Your task to perform on an android device: What is the news today? Image 0: 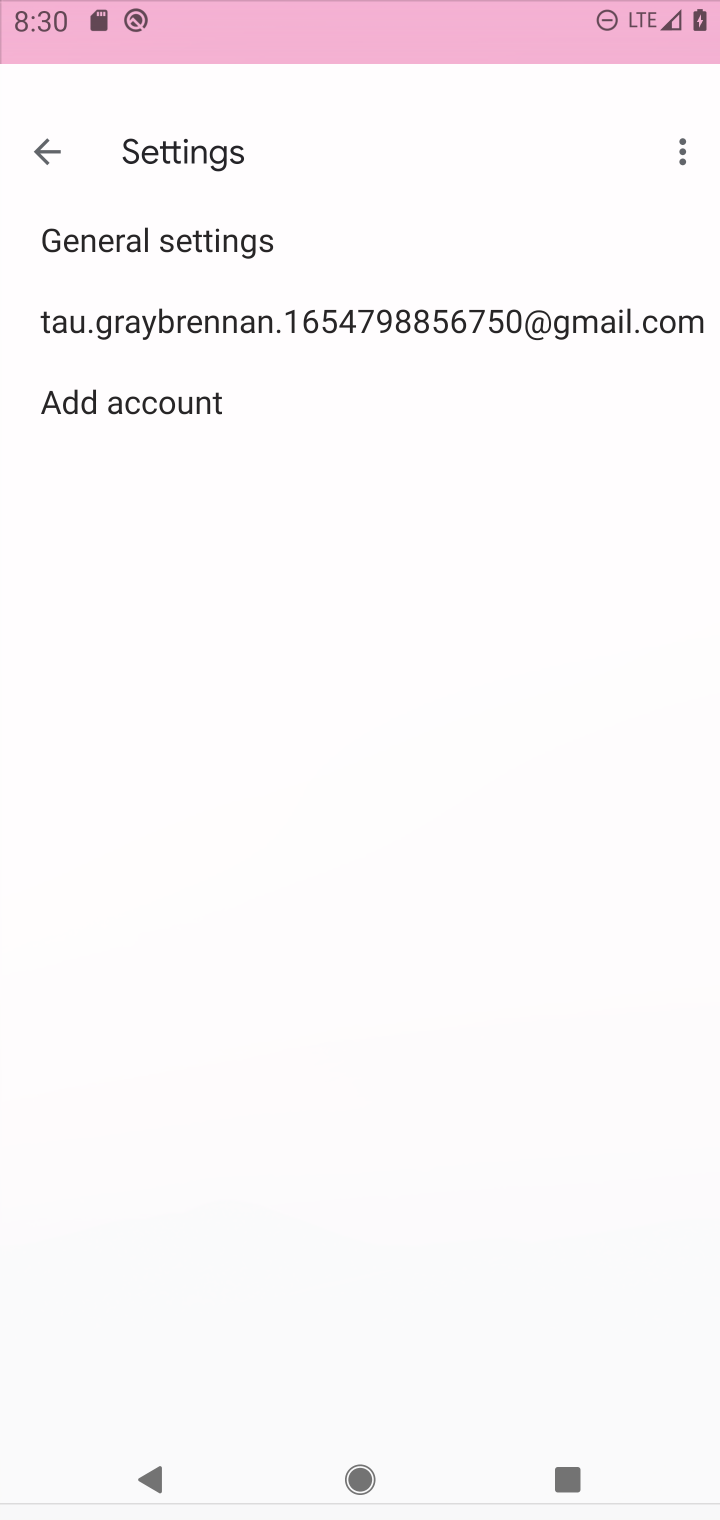
Step 0: press home button
Your task to perform on an android device: What is the news today? Image 1: 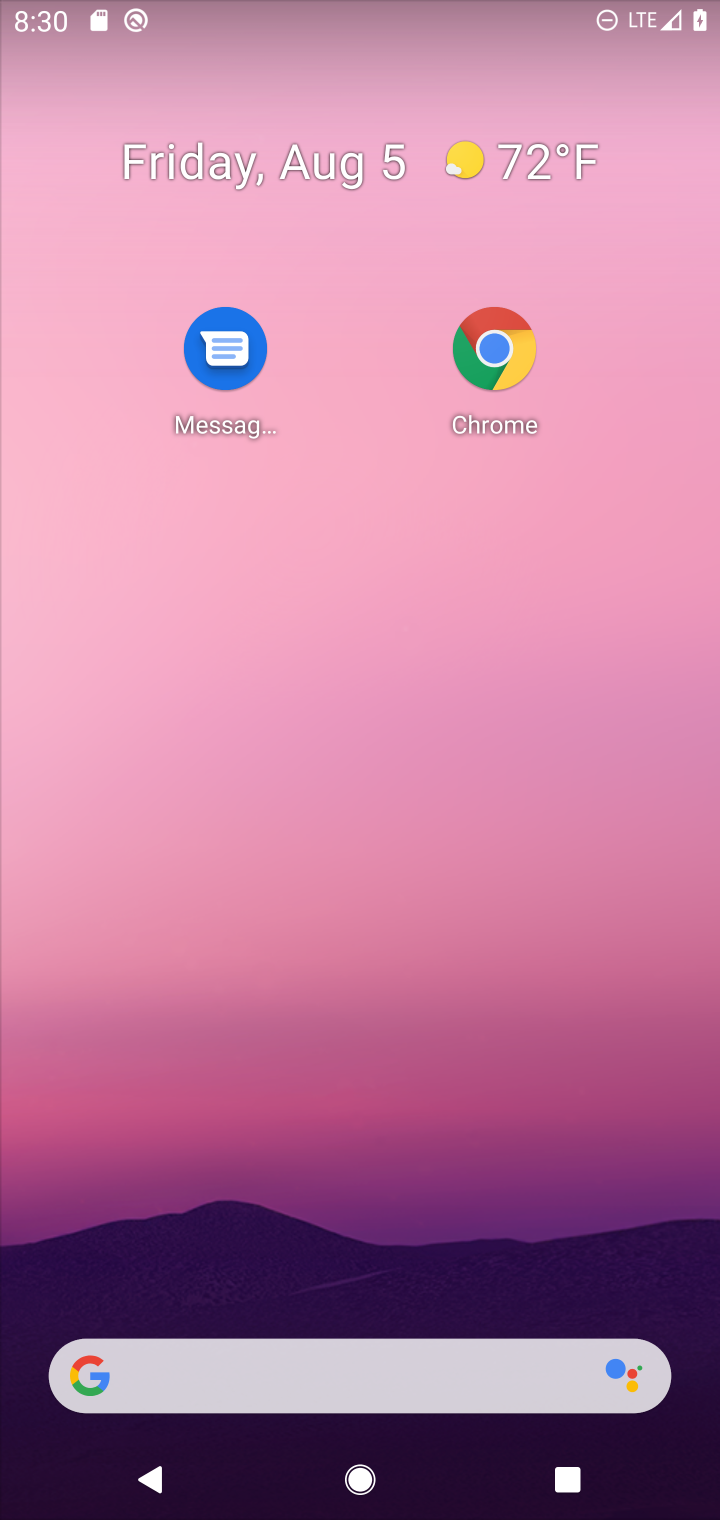
Step 1: drag from (464, 839) to (559, 311)
Your task to perform on an android device: What is the news today? Image 2: 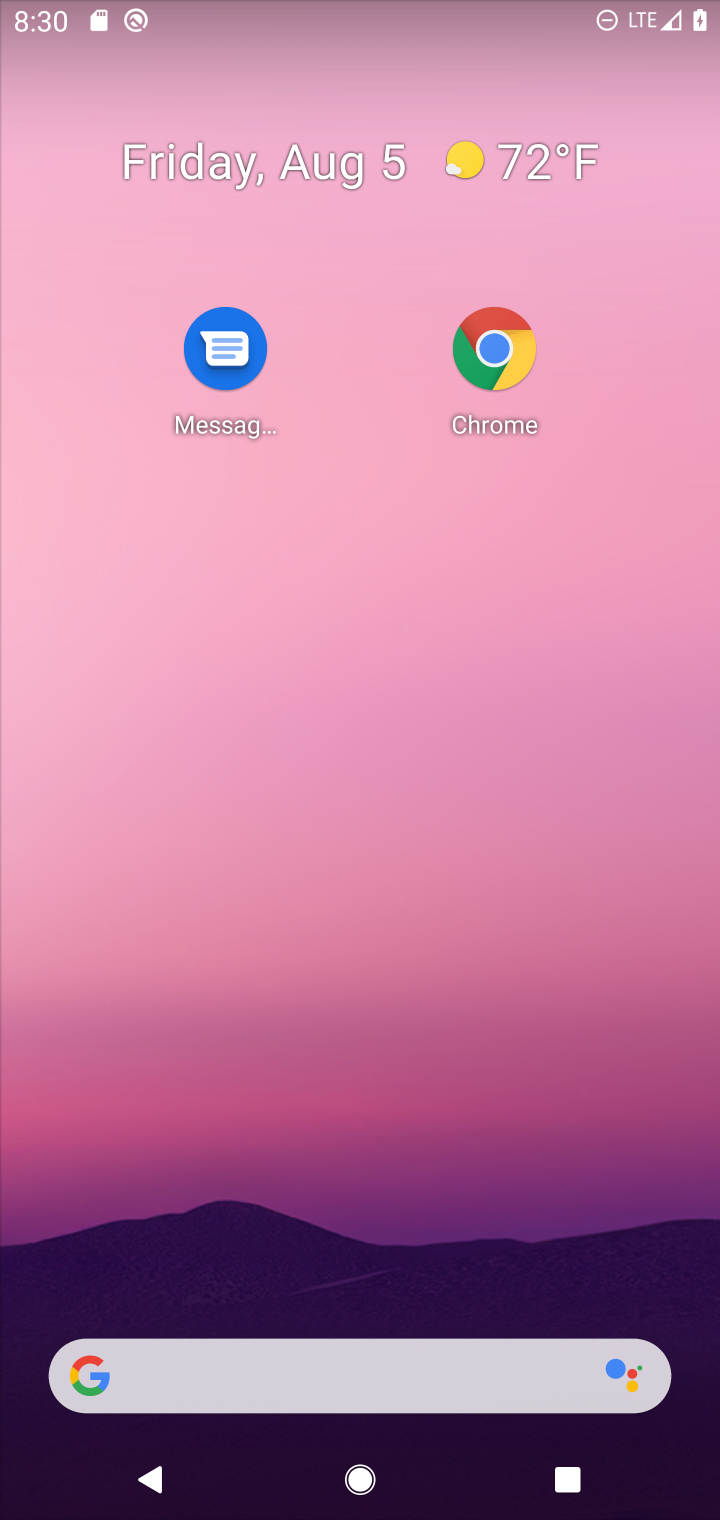
Step 2: drag from (363, 1409) to (511, 170)
Your task to perform on an android device: What is the news today? Image 3: 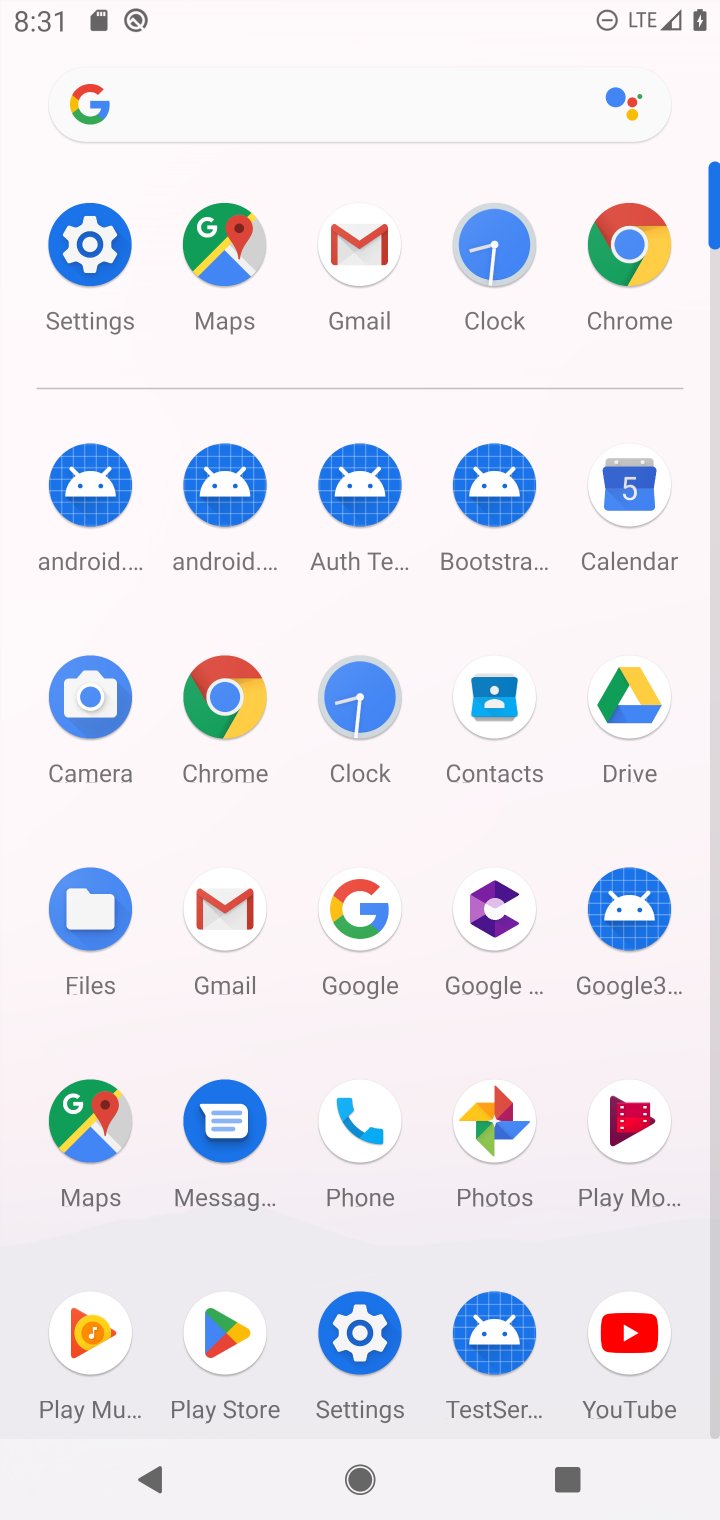
Step 3: click (274, 104)
Your task to perform on an android device: What is the news today? Image 4: 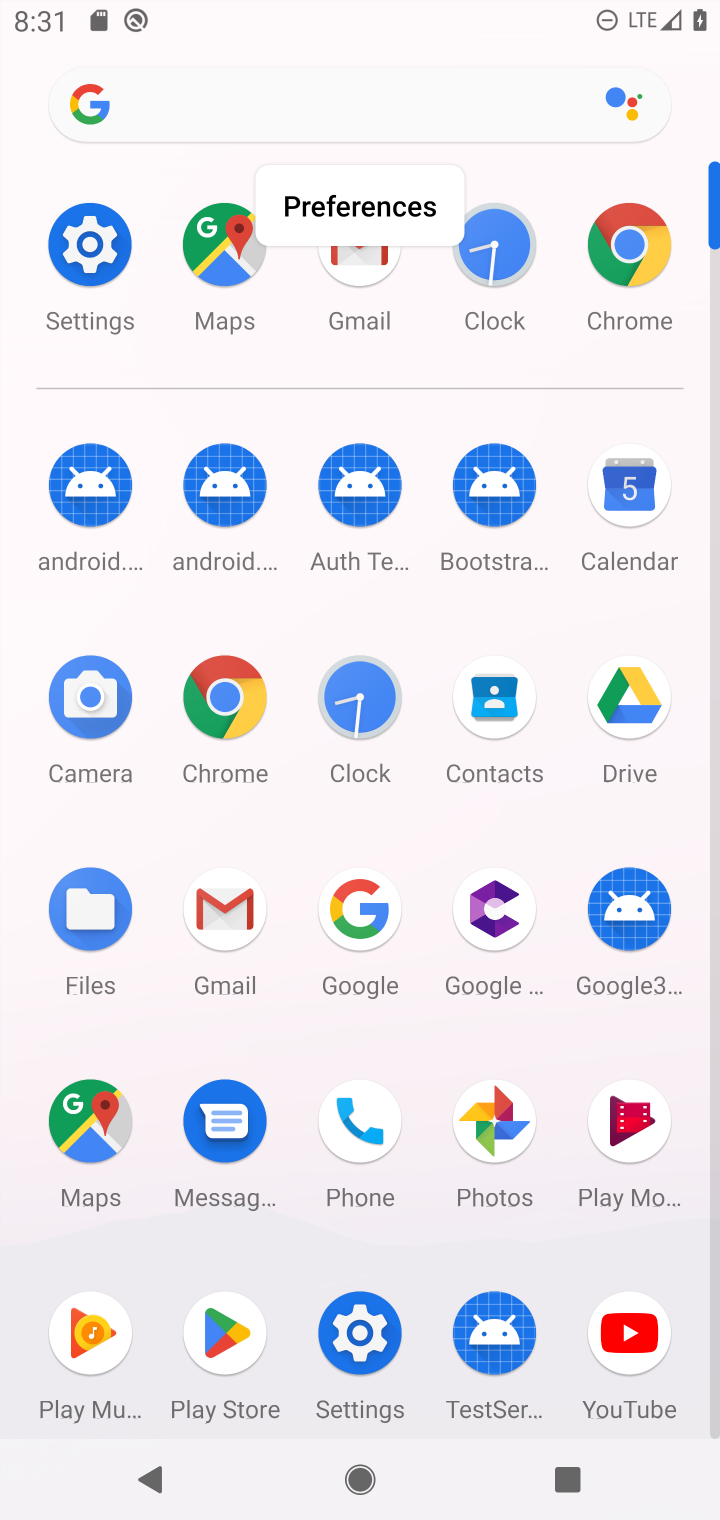
Step 4: click (254, 89)
Your task to perform on an android device: What is the news today? Image 5: 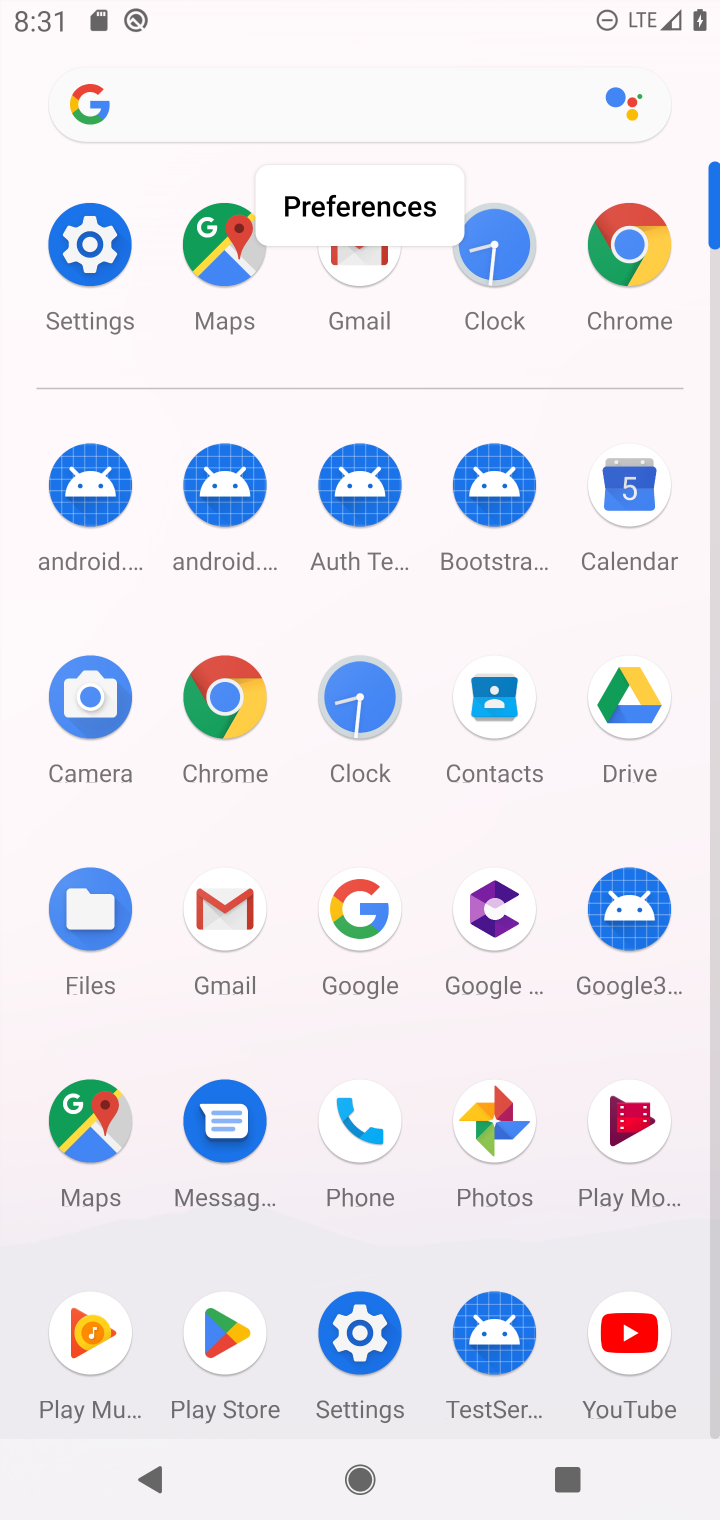
Step 5: click (235, 110)
Your task to perform on an android device: What is the news today? Image 6: 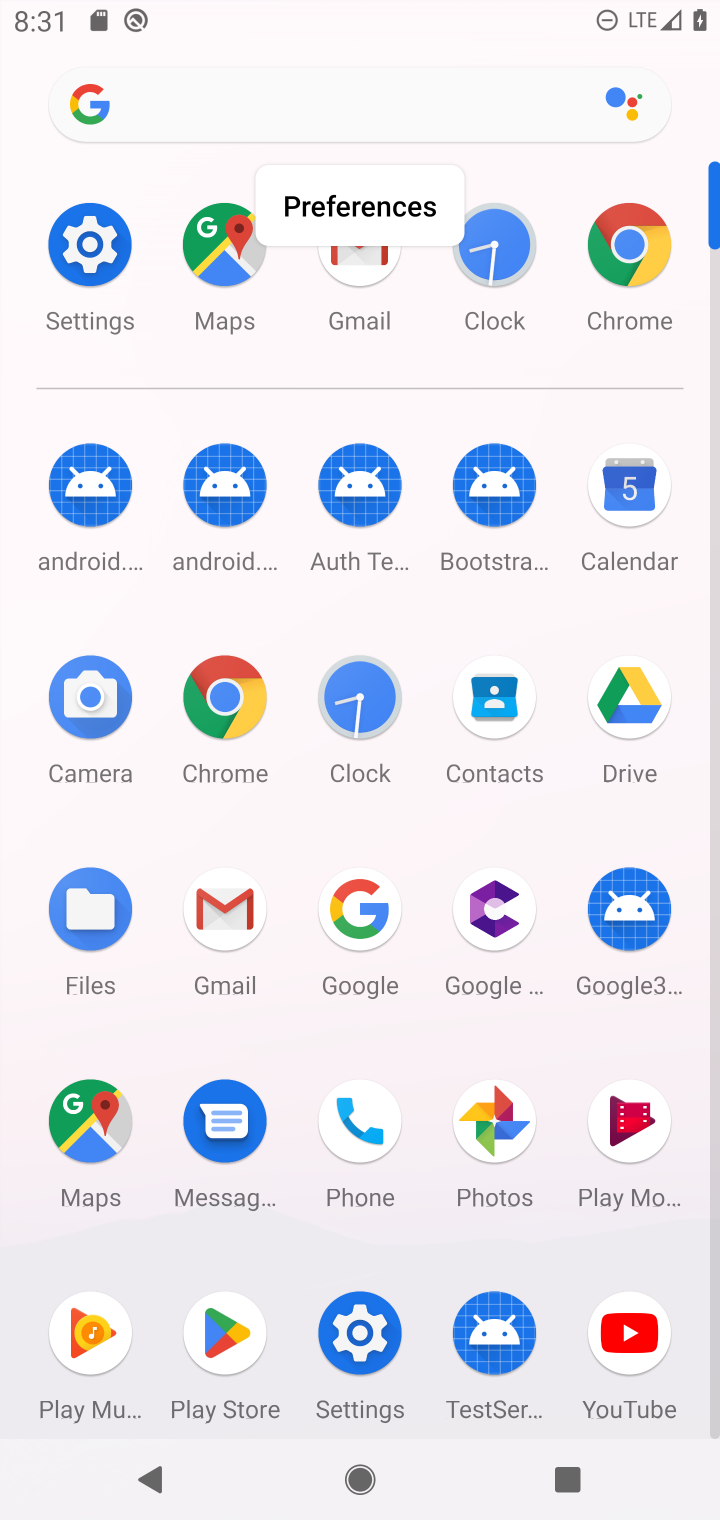
Step 6: click (206, 118)
Your task to perform on an android device: What is the news today? Image 7: 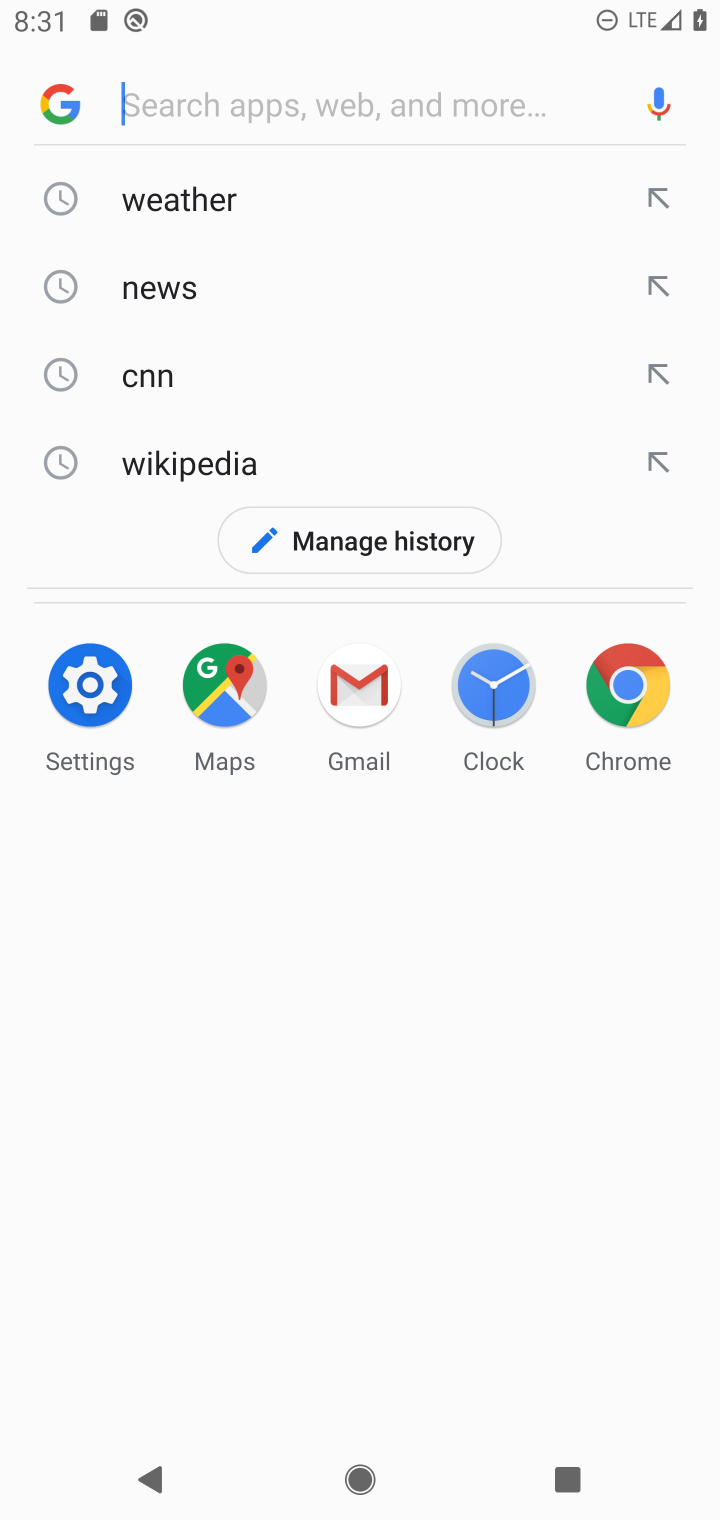
Step 7: click (174, 297)
Your task to perform on an android device: What is the news today? Image 8: 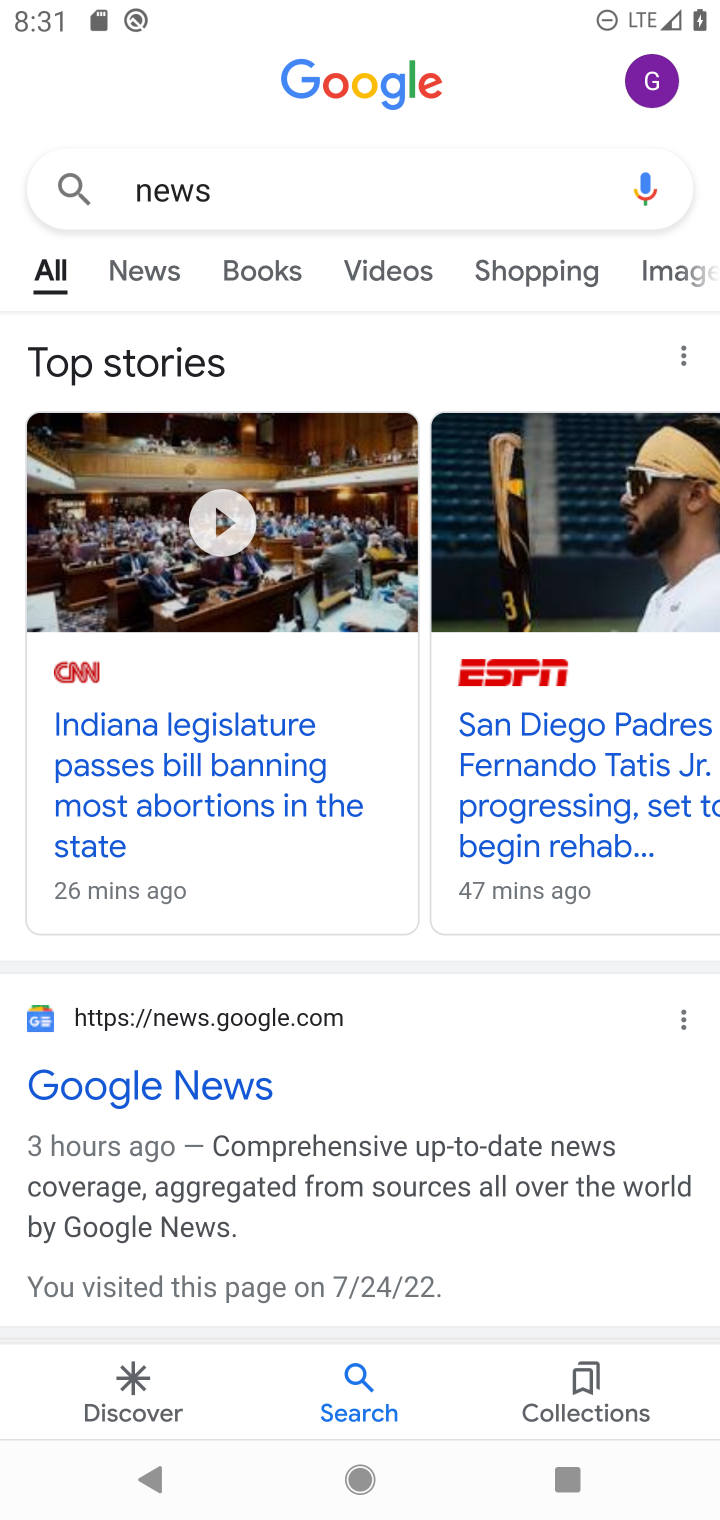
Step 8: task complete